Your task to perform on an android device: check storage Image 0: 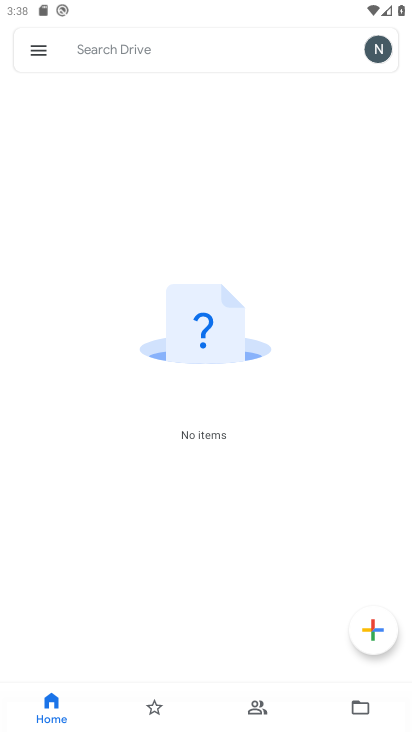
Step 0: drag from (224, 5) to (274, 724)
Your task to perform on an android device: check storage Image 1: 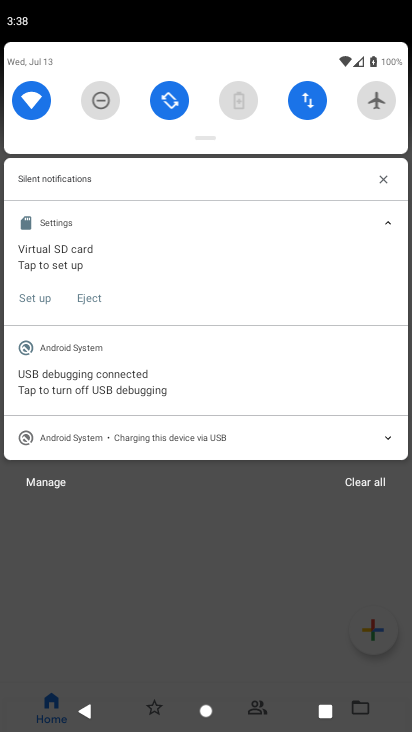
Step 1: click (238, 100)
Your task to perform on an android device: check storage Image 2: 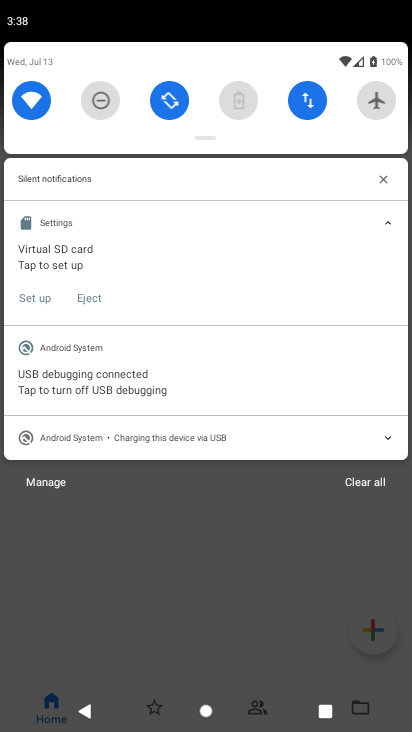
Step 2: click (247, 100)
Your task to perform on an android device: check storage Image 3: 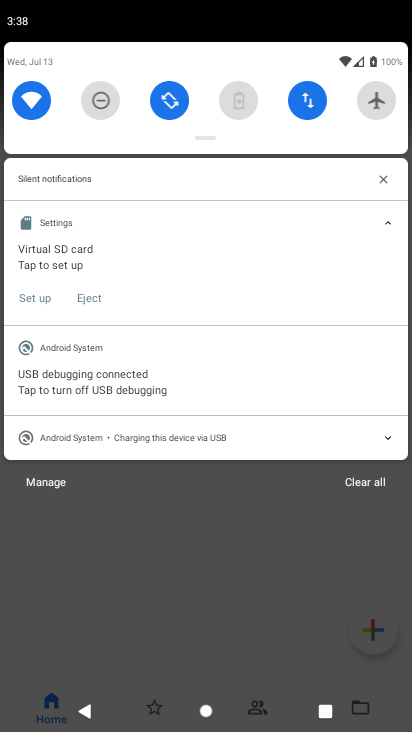
Step 3: click (247, 100)
Your task to perform on an android device: check storage Image 4: 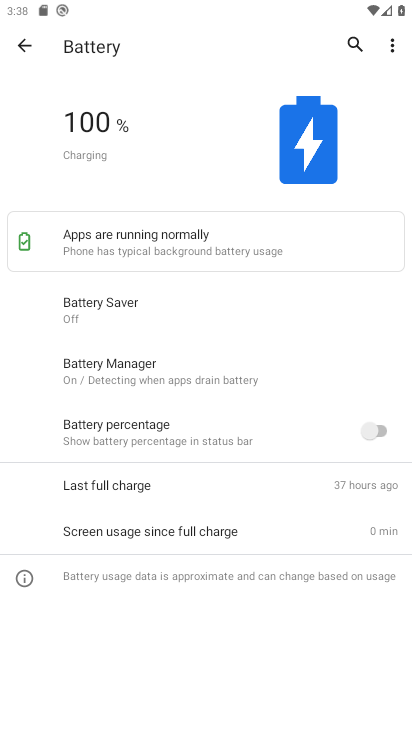
Step 4: click (30, 51)
Your task to perform on an android device: check storage Image 5: 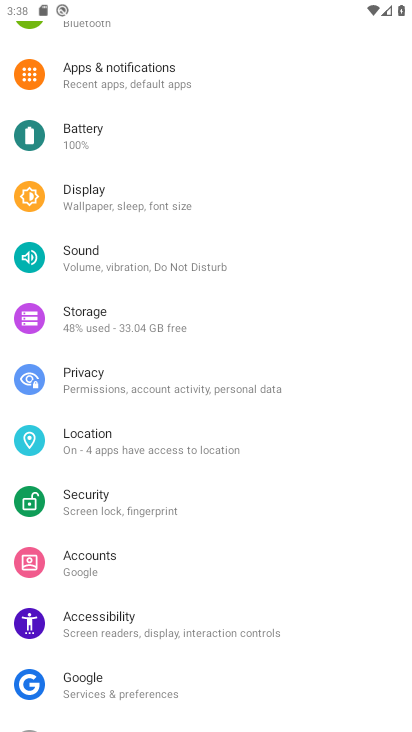
Step 5: click (81, 332)
Your task to perform on an android device: check storage Image 6: 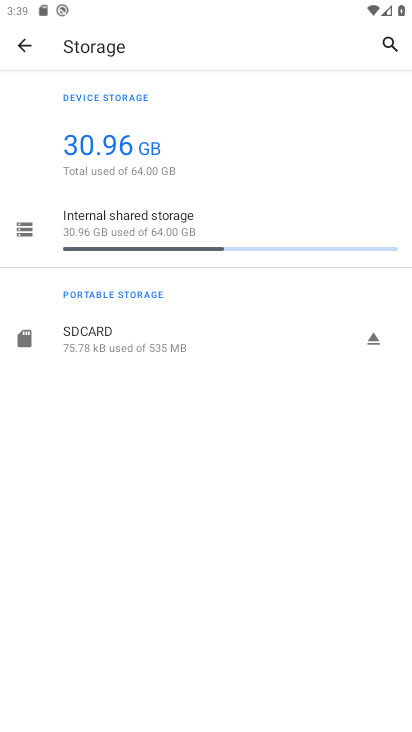
Step 6: task complete